Your task to perform on an android device: find snoozed emails in the gmail app Image 0: 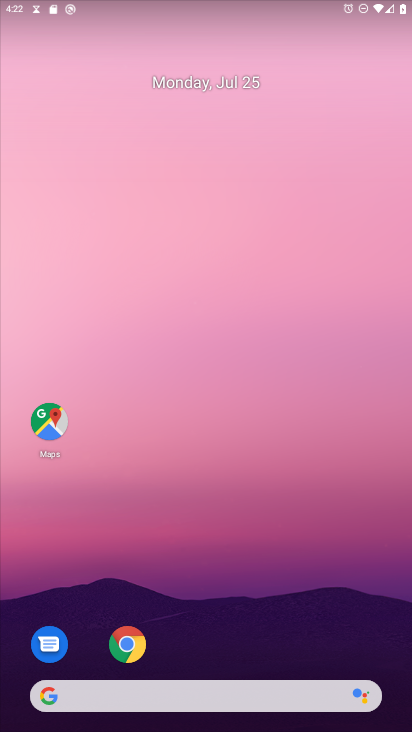
Step 0: press home button
Your task to perform on an android device: find snoozed emails in the gmail app Image 1: 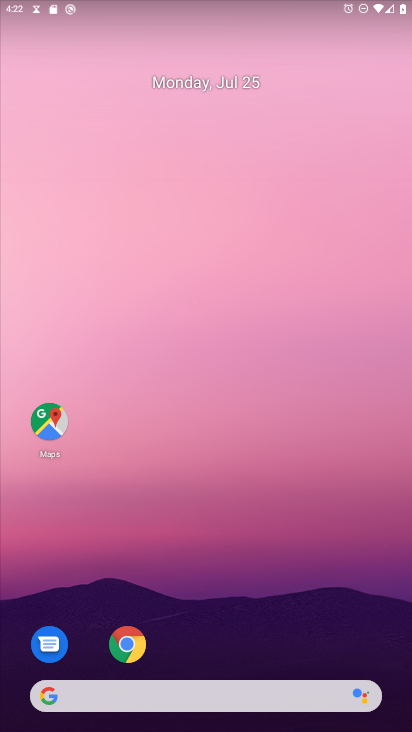
Step 1: drag from (254, 620) to (246, 76)
Your task to perform on an android device: find snoozed emails in the gmail app Image 2: 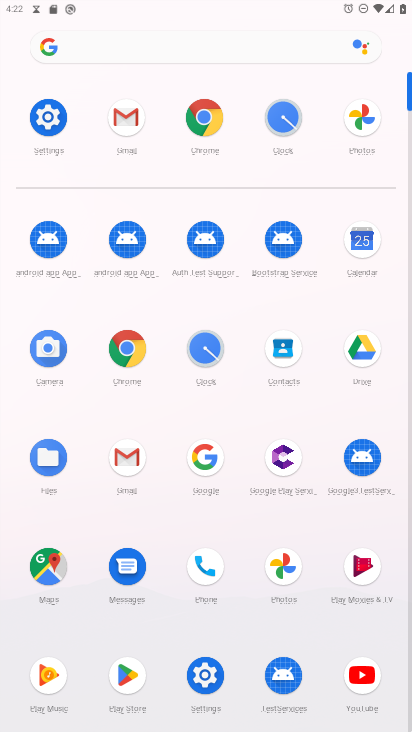
Step 2: click (121, 117)
Your task to perform on an android device: find snoozed emails in the gmail app Image 3: 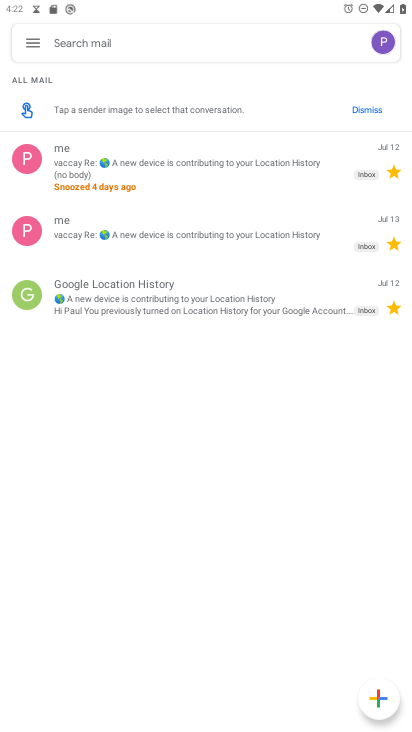
Step 3: click (36, 46)
Your task to perform on an android device: find snoozed emails in the gmail app Image 4: 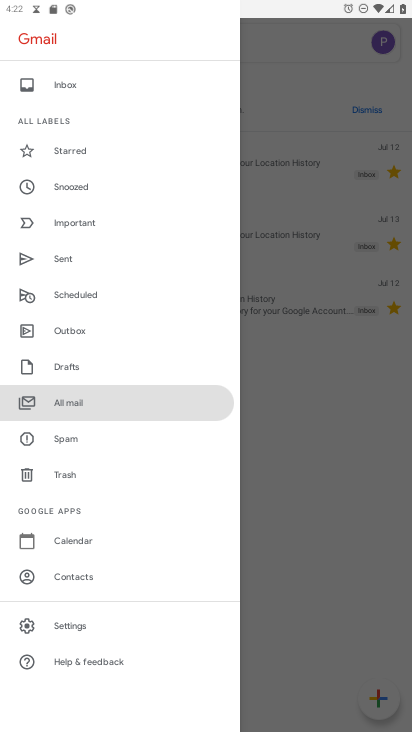
Step 4: click (81, 179)
Your task to perform on an android device: find snoozed emails in the gmail app Image 5: 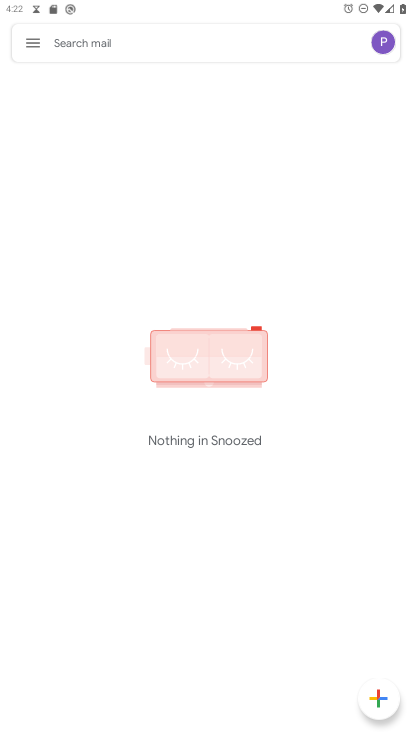
Step 5: task complete